Your task to perform on an android device: Go to calendar. Show me events next week Image 0: 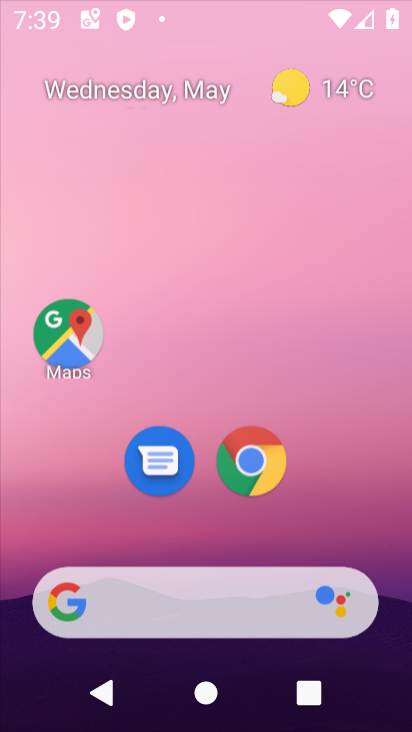
Step 0: press home button
Your task to perform on an android device: Go to calendar. Show me events next week Image 1: 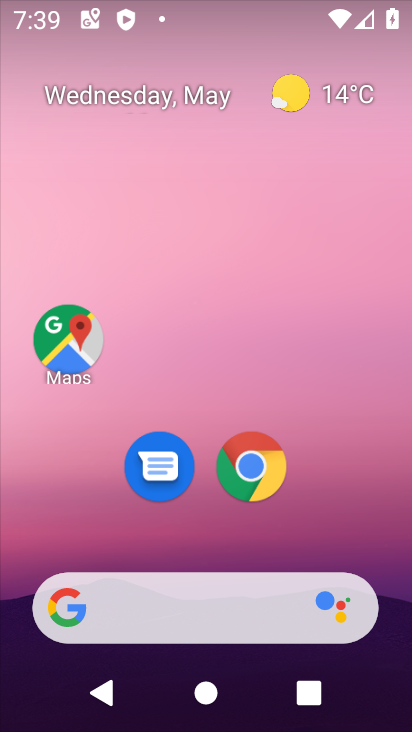
Step 1: press home button
Your task to perform on an android device: Go to calendar. Show me events next week Image 2: 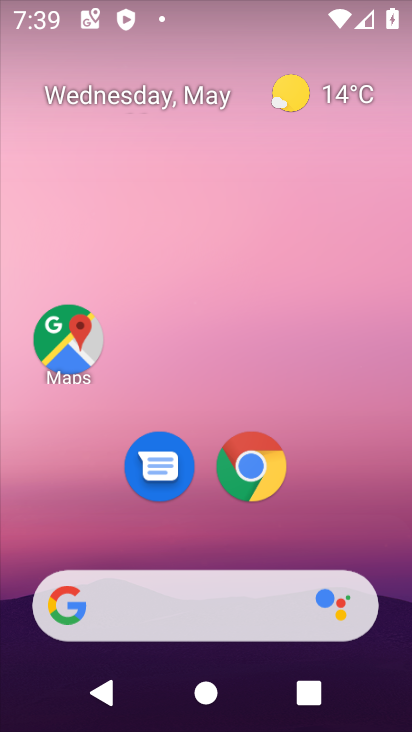
Step 2: drag from (201, 531) to (247, 0)
Your task to perform on an android device: Go to calendar. Show me events next week Image 3: 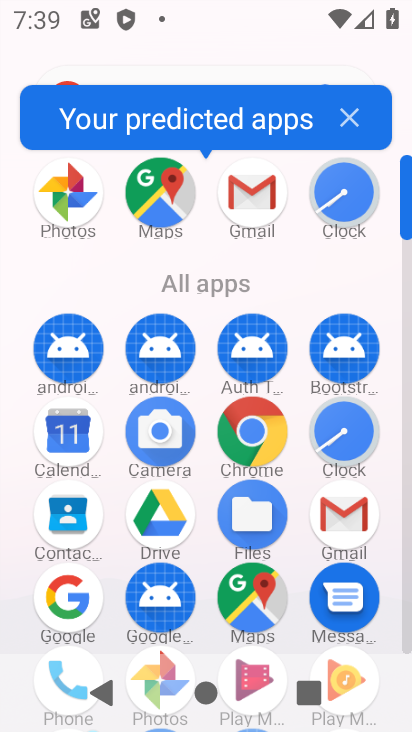
Step 3: click (66, 432)
Your task to perform on an android device: Go to calendar. Show me events next week Image 4: 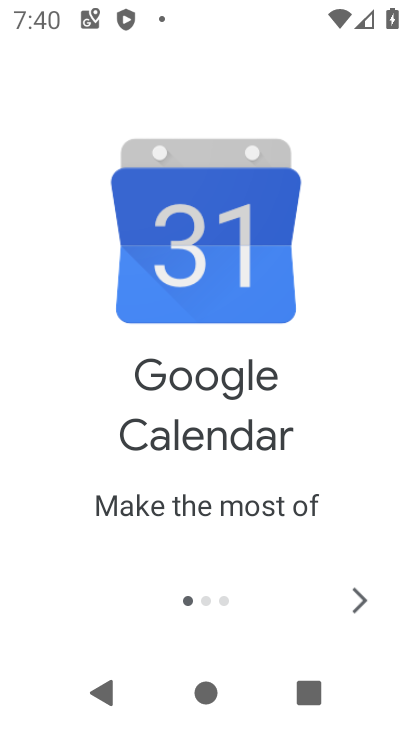
Step 4: click (352, 596)
Your task to perform on an android device: Go to calendar. Show me events next week Image 5: 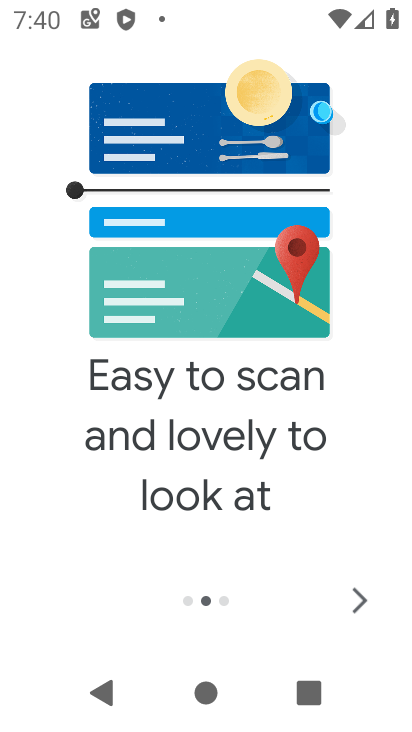
Step 5: click (359, 600)
Your task to perform on an android device: Go to calendar. Show me events next week Image 6: 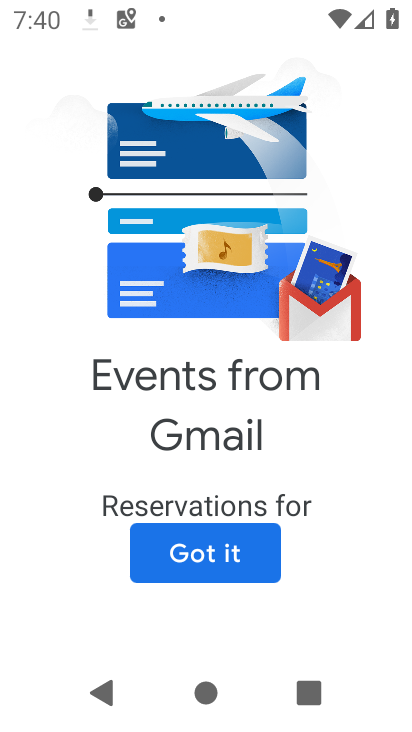
Step 6: click (203, 540)
Your task to perform on an android device: Go to calendar. Show me events next week Image 7: 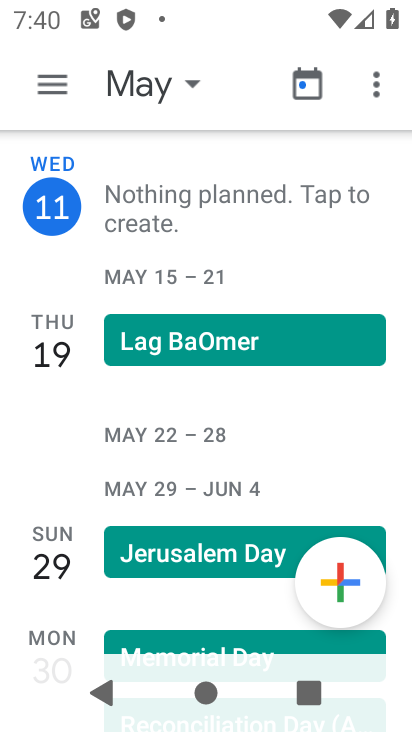
Step 7: click (56, 85)
Your task to perform on an android device: Go to calendar. Show me events next week Image 8: 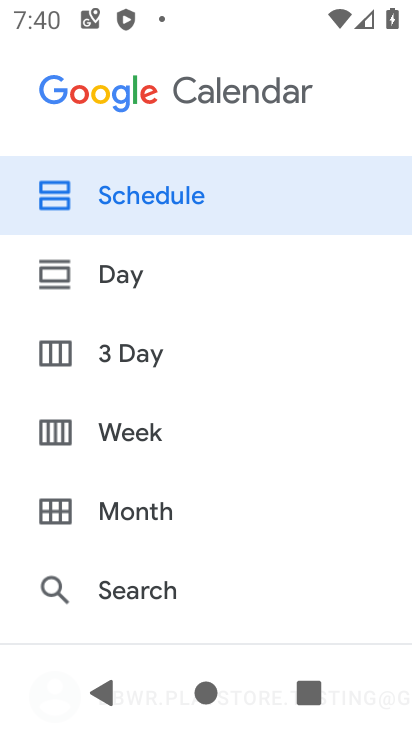
Step 8: drag from (88, 534) to (84, 110)
Your task to perform on an android device: Go to calendar. Show me events next week Image 9: 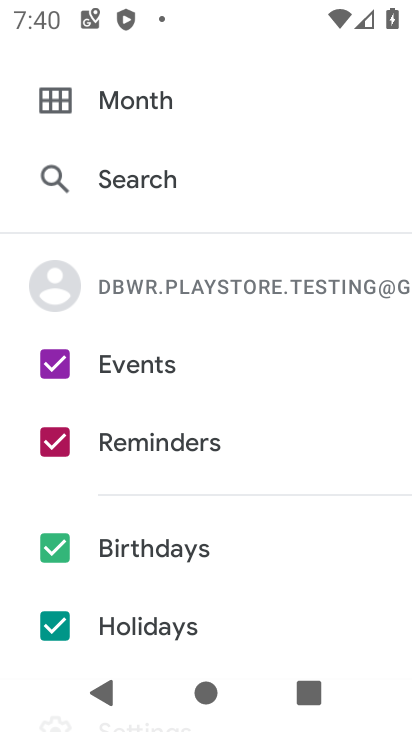
Step 9: click (52, 433)
Your task to perform on an android device: Go to calendar. Show me events next week Image 10: 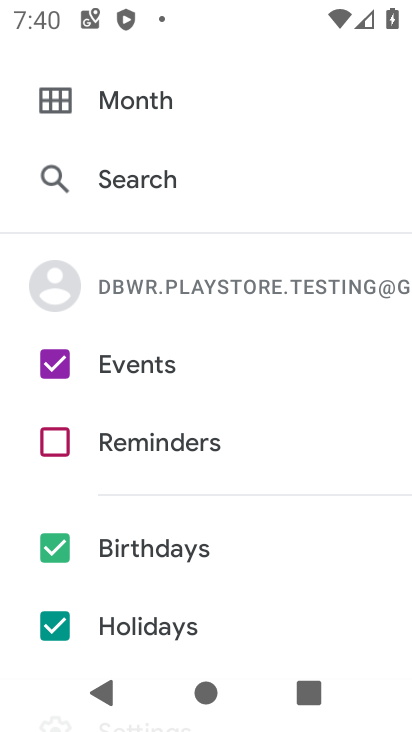
Step 10: click (56, 554)
Your task to perform on an android device: Go to calendar. Show me events next week Image 11: 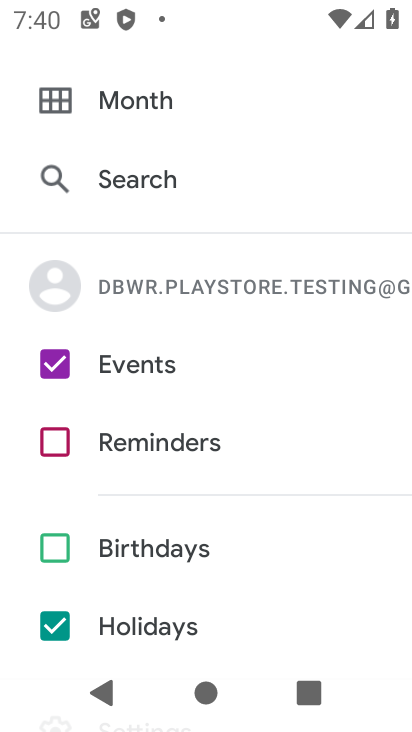
Step 11: click (54, 633)
Your task to perform on an android device: Go to calendar. Show me events next week Image 12: 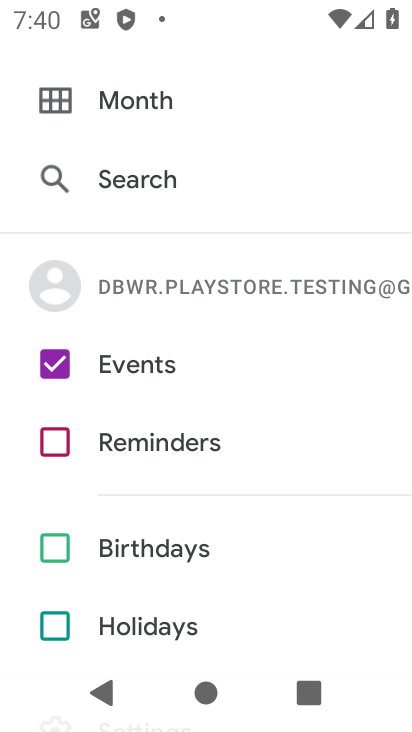
Step 12: drag from (109, 173) to (119, 657)
Your task to perform on an android device: Go to calendar. Show me events next week Image 13: 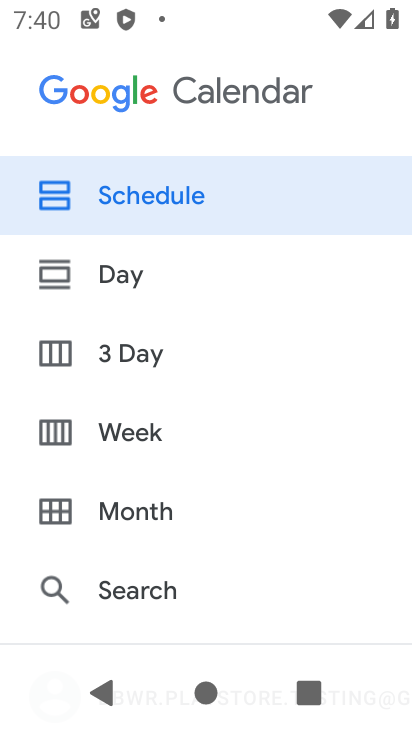
Step 13: click (80, 428)
Your task to perform on an android device: Go to calendar. Show me events next week Image 14: 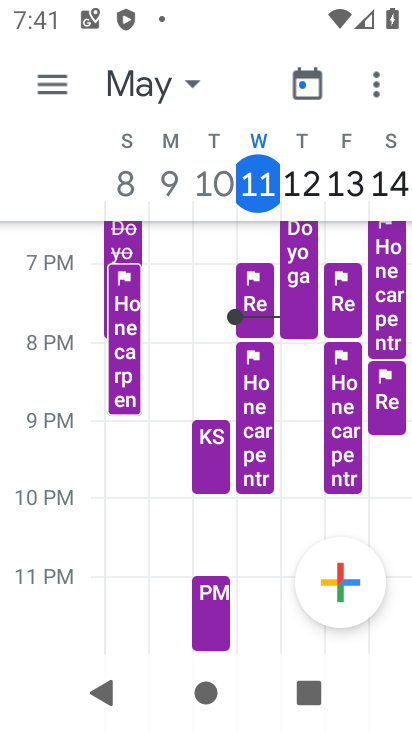
Step 14: drag from (352, 188) to (4, 184)
Your task to perform on an android device: Go to calendar. Show me events next week Image 15: 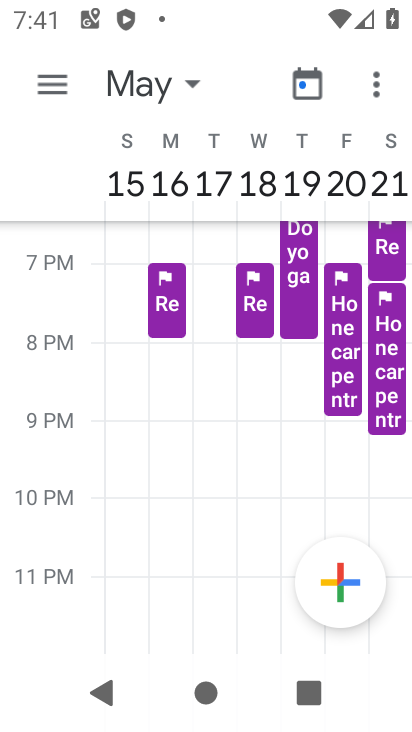
Step 15: click (119, 183)
Your task to perform on an android device: Go to calendar. Show me events next week Image 16: 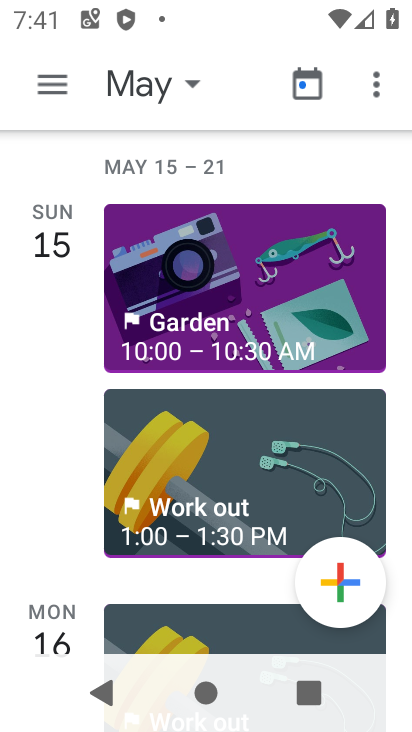
Step 16: drag from (84, 569) to (92, 366)
Your task to perform on an android device: Go to calendar. Show me events next week Image 17: 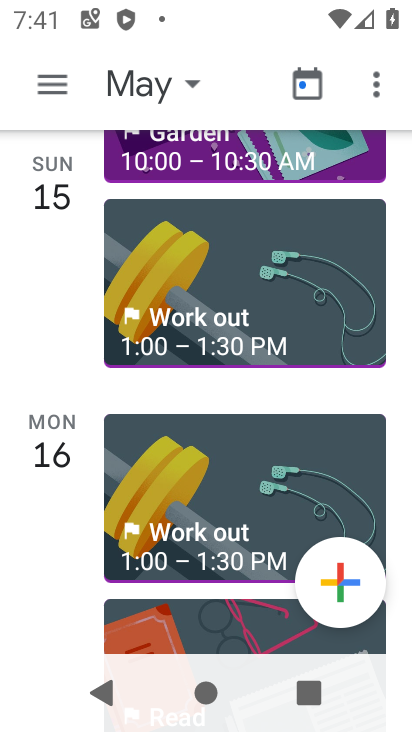
Step 17: click (94, 263)
Your task to perform on an android device: Go to calendar. Show me events next week Image 18: 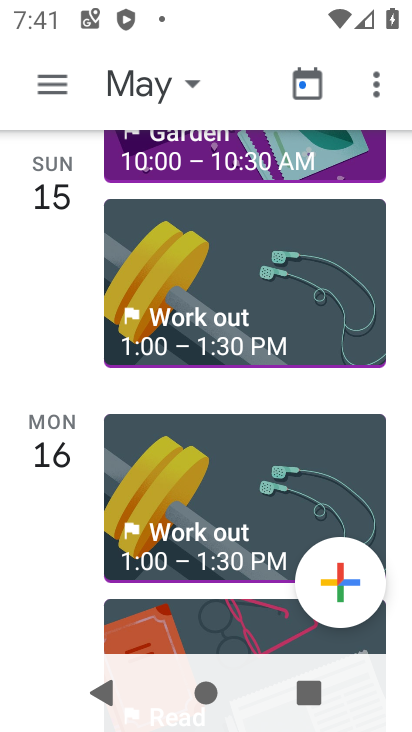
Step 18: drag from (58, 570) to (65, 158)
Your task to perform on an android device: Go to calendar. Show me events next week Image 19: 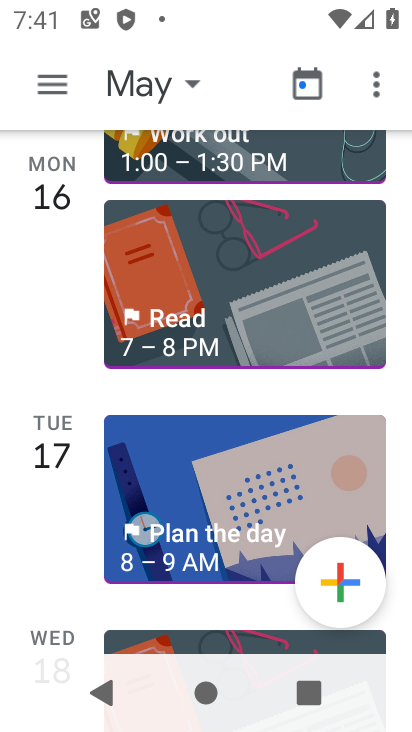
Step 19: drag from (66, 563) to (78, 160)
Your task to perform on an android device: Go to calendar. Show me events next week Image 20: 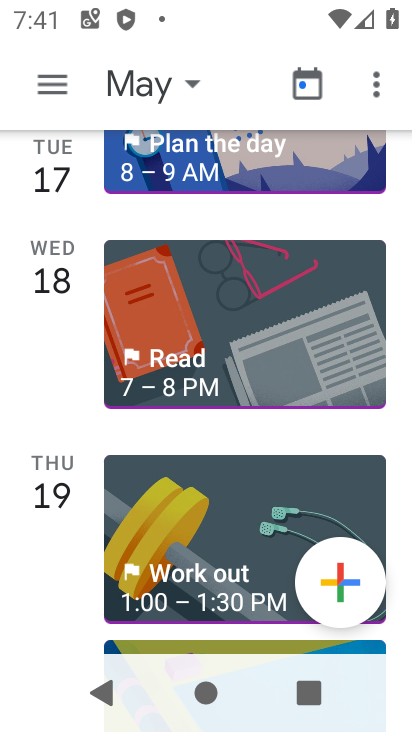
Step 20: drag from (83, 549) to (81, 238)
Your task to perform on an android device: Go to calendar. Show me events next week Image 21: 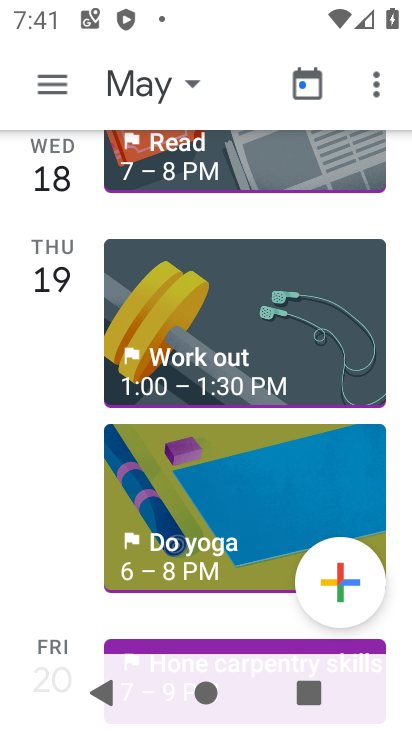
Step 21: click (81, 210)
Your task to perform on an android device: Go to calendar. Show me events next week Image 22: 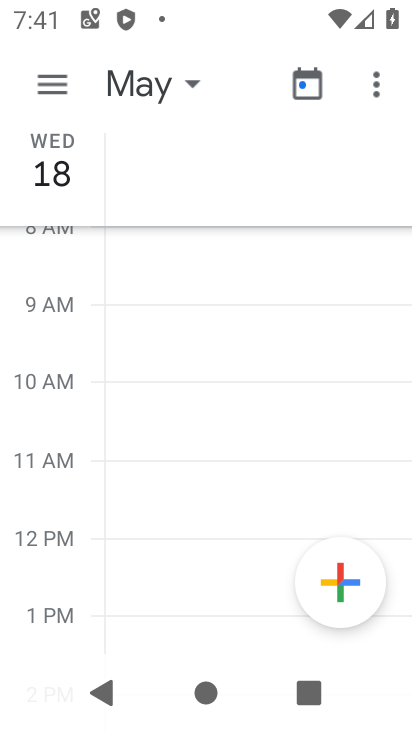
Step 22: click (69, 197)
Your task to perform on an android device: Go to calendar. Show me events next week Image 23: 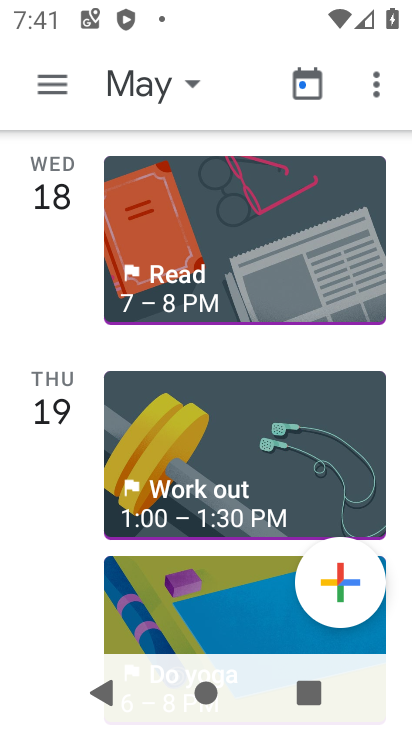
Step 23: drag from (81, 552) to (88, 131)
Your task to perform on an android device: Go to calendar. Show me events next week Image 24: 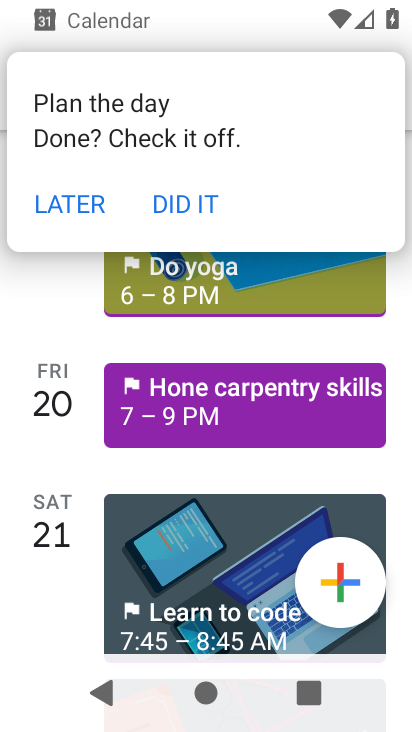
Step 24: click (67, 201)
Your task to perform on an android device: Go to calendar. Show me events next week Image 25: 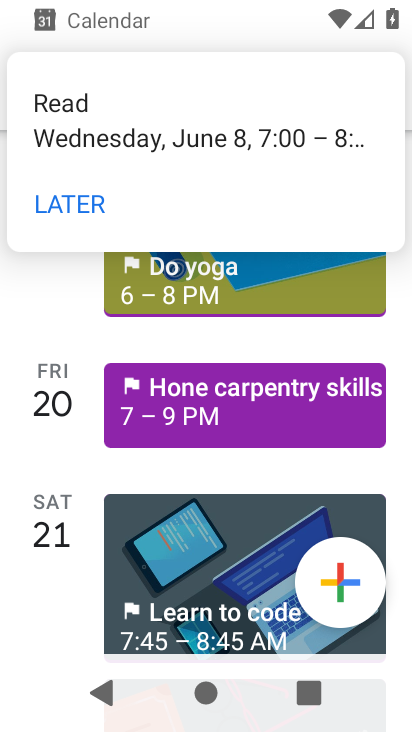
Step 25: task complete